Your task to perform on an android device: turn off notifications settings in the gmail app Image 0: 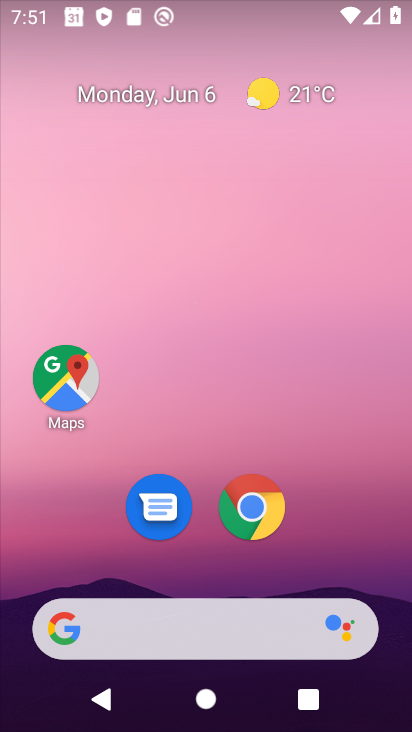
Step 0: drag from (215, 573) to (252, 72)
Your task to perform on an android device: turn off notifications settings in the gmail app Image 1: 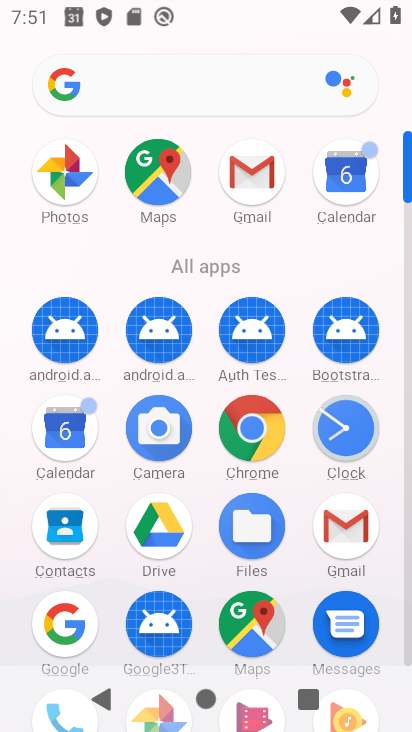
Step 1: click (252, 164)
Your task to perform on an android device: turn off notifications settings in the gmail app Image 2: 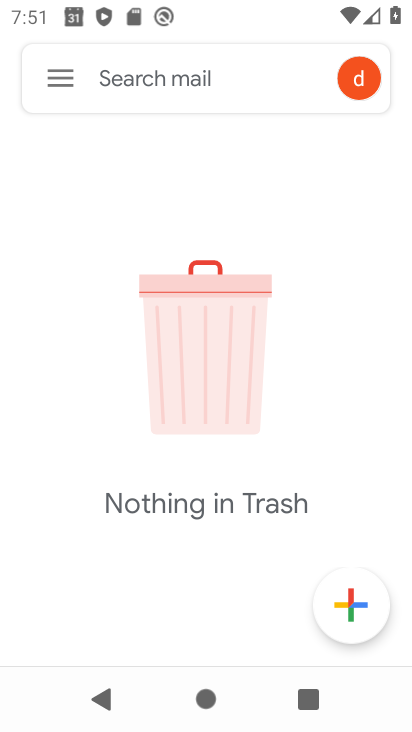
Step 2: click (61, 84)
Your task to perform on an android device: turn off notifications settings in the gmail app Image 3: 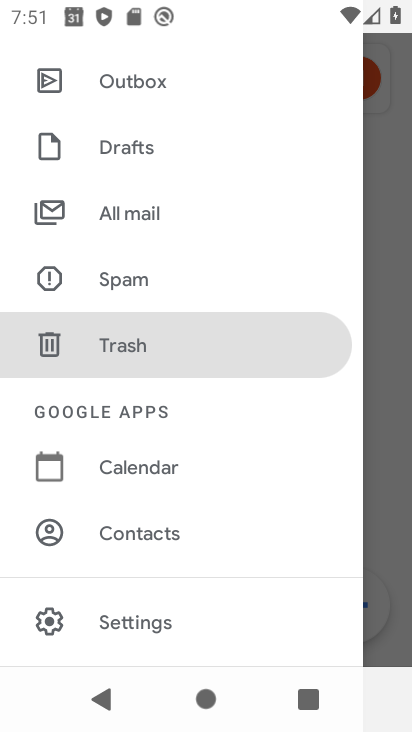
Step 3: drag from (153, 586) to (212, 226)
Your task to perform on an android device: turn off notifications settings in the gmail app Image 4: 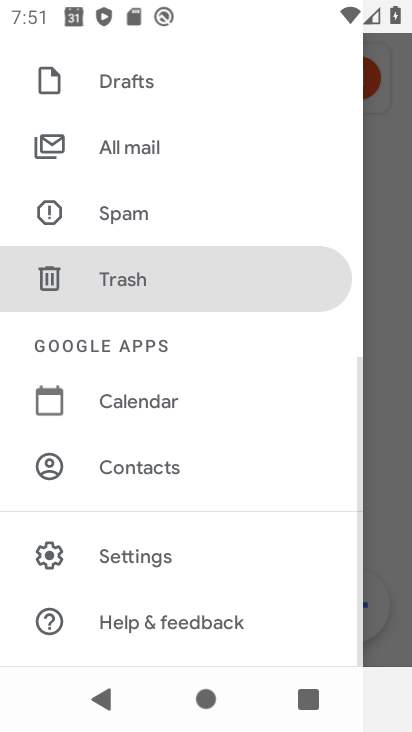
Step 4: click (134, 571)
Your task to perform on an android device: turn off notifications settings in the gmail app Image 5: 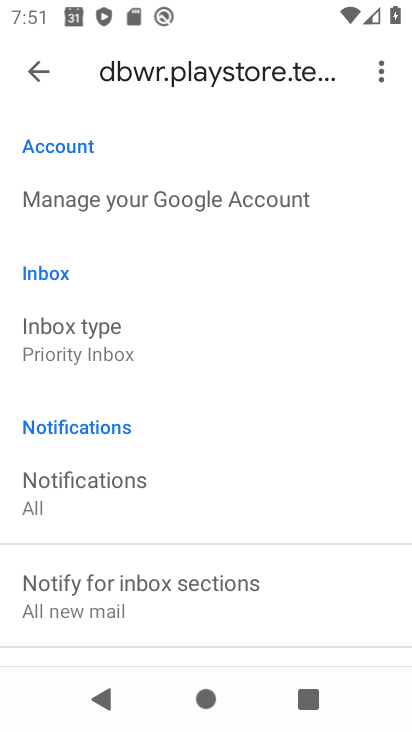
Step 5: drag from (131, 603) to (193, 185)
Your task to perform on an android device: turn off notifications settings in the gmail app Image 6: 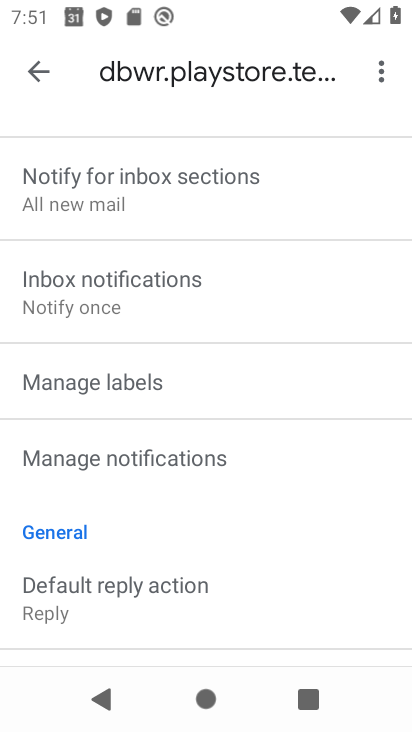
Step 6: drag from (132, 531) to (132, 254)
Your task to perform on an android device: turn off notifications settings in the gmail app Image 7: 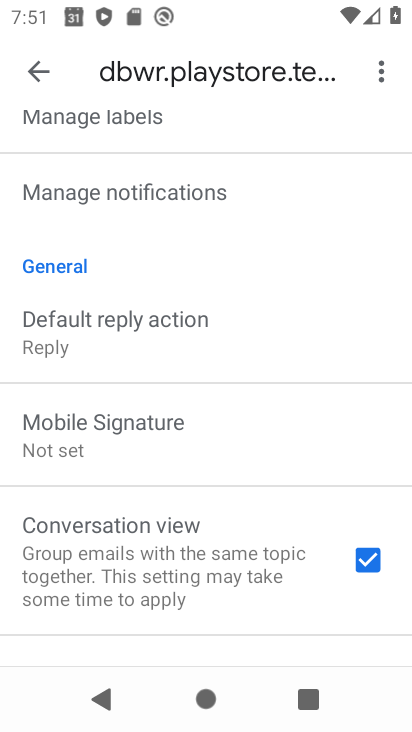
Step 7: drag from (148, 203) to (139, 470)
Your task to perform on an android device: turn off notifications settings in the gmail app Image 8: 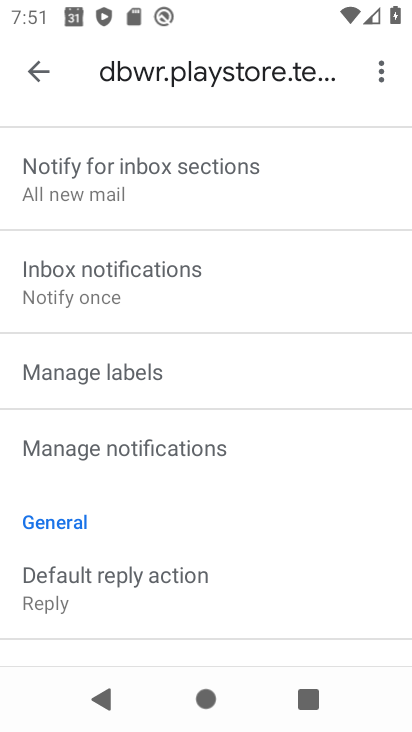
Step 8: click (123, 442)
Your task to perform on an android device: turn off notifications settings in the gmail app Image 9: 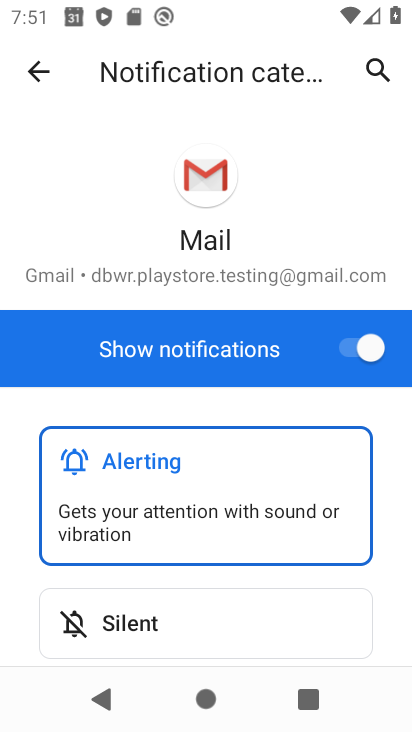
Step 9: click (354, 350)
Your task to perform on an android device: turn off notifications settings in the gmail app Image 10: 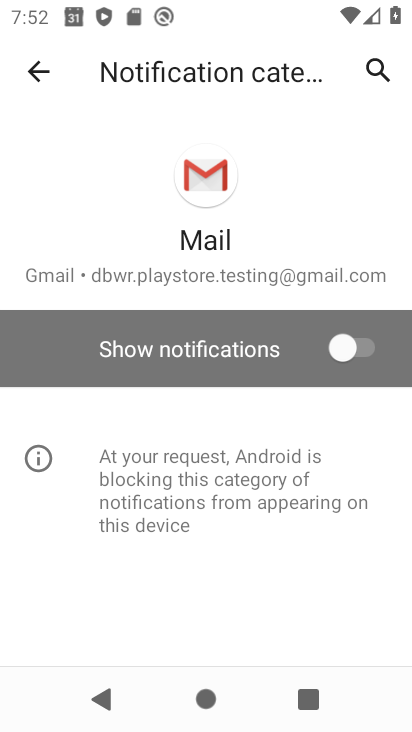
Step 10: task complete